Your task to perform on an android device: set the stopwatch Image 0: 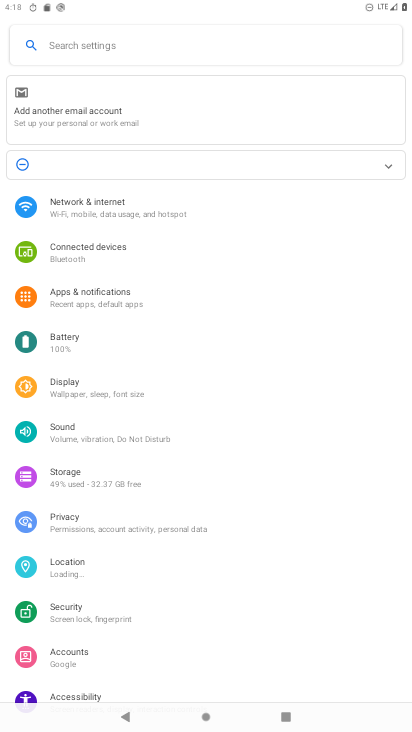
Step 0: press home button
Your task to perform on an android device: set the stopwatch Image 1: 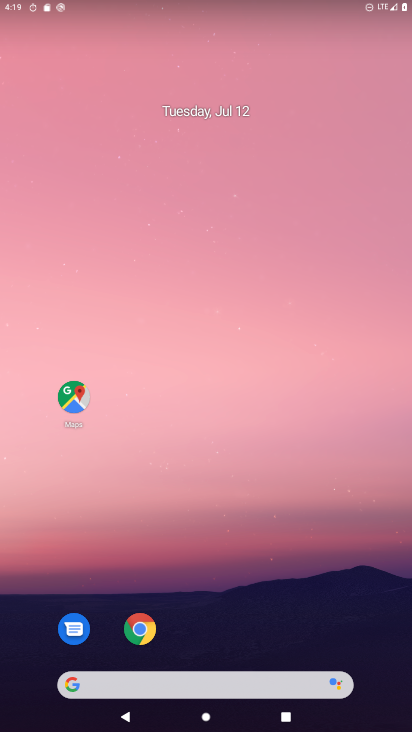
Step 1: drag from (238, 584) to (336, 105)
Your task to perform on an android device: set the stopwatch Image 2: 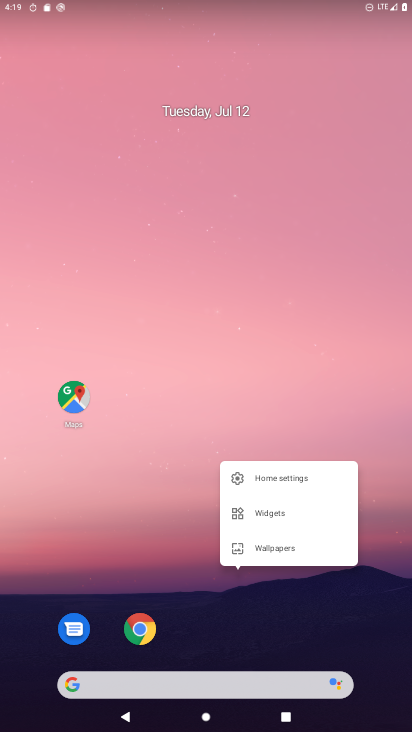
Step 2: click (263, 595)
Your task to perform on an android device: set the stopwatch Image 3: 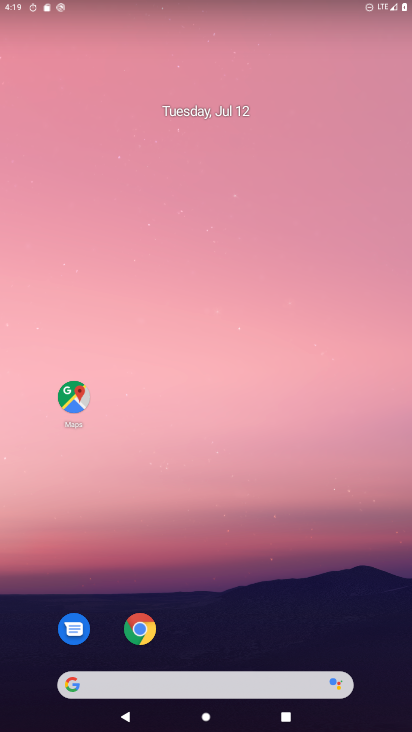
Step 3: drag from (263, 595) to (304, 130)
Your task to perform on an android device: set the stopwatch Image 4: 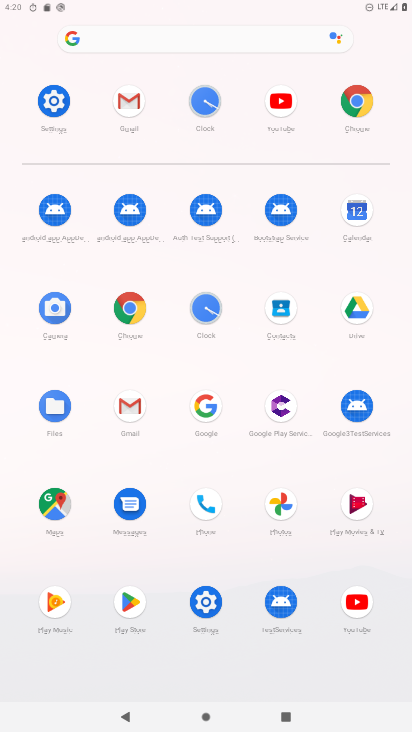
Step 4: click (188, 115)
Your task to perform on an android device: set the stopwatch Image 5: 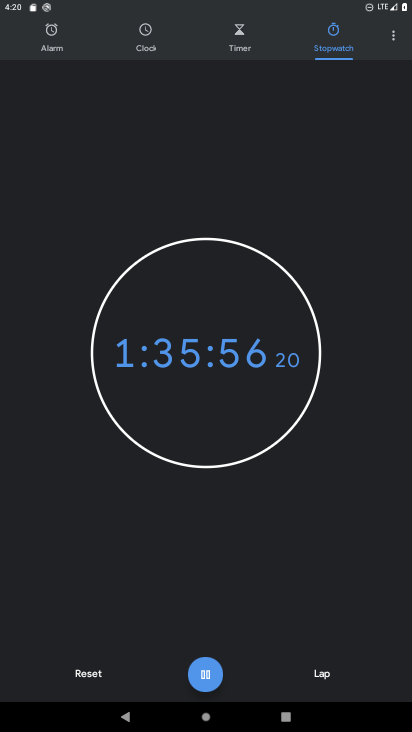
Step 5: click (92, 679)
Your task to perform on an android device: set the stopwatch Image 6: 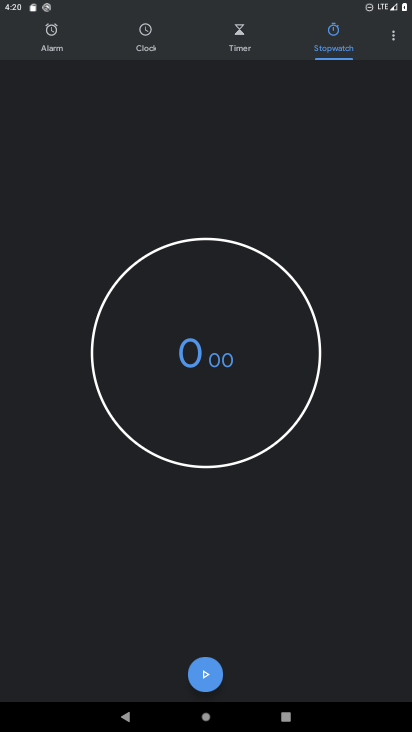
Step 6: click (214, 673)
Your task to perform on an android device: set the stopwatch Image 7: 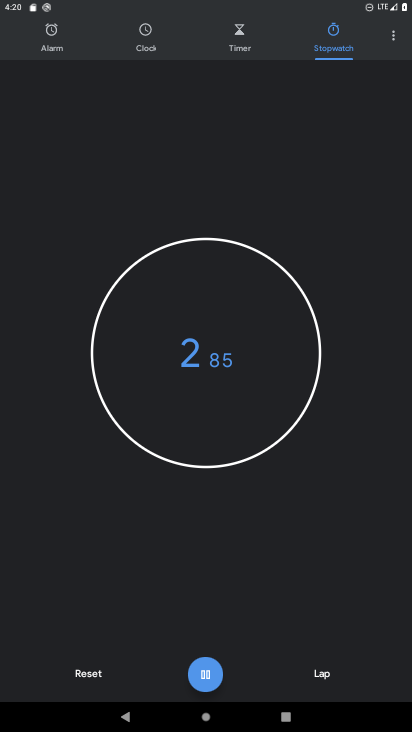
Step 7: task complete